Your task to perform on an android device: turn off data saver in the chrome app Image 0: 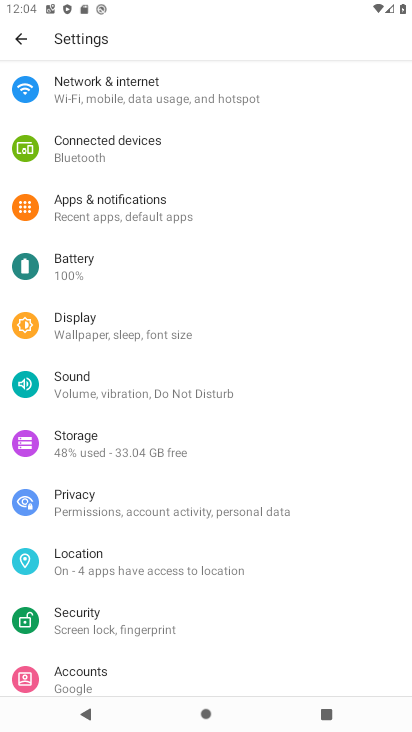
Step 0: press home button
Your task to perform on an android device: turn off data saver in the chrome app Image 1: 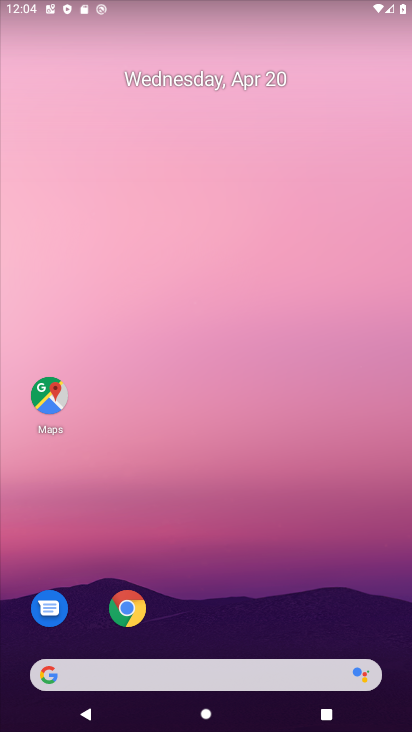
Step 1: click (130, 615)
Your task to perform on an android device: turn off data saver in the chrome app Image 2: 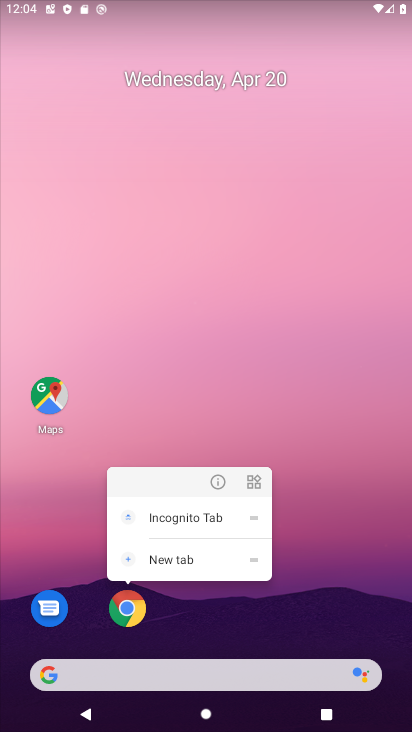
Step 2: click (130, 615)
Your task to perform on an android device: turn off data saver in the chrome app Image 3: 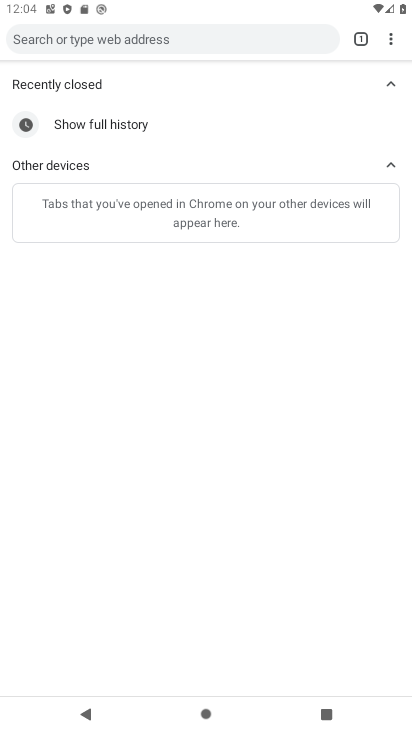
Step 3: click (390, 41)
Your task to perform on an android device: turn off data saver in the chrome app Image 4: 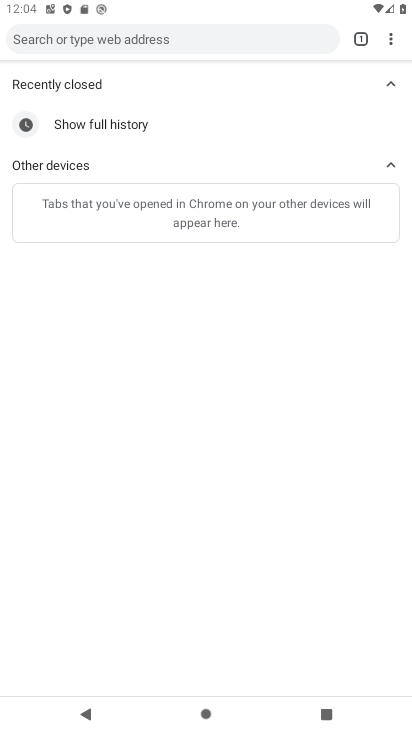
Step 4: click (387, 39)
Your task to perform on an android device: turn off data saver in the chrome app Image 5: 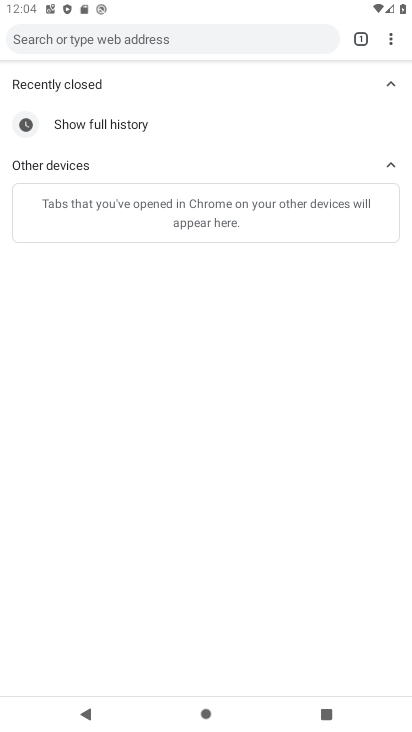
Step 5: click (392, 43)
Your task to perform on an android device: turn off data saver in the chrome app Image 6: 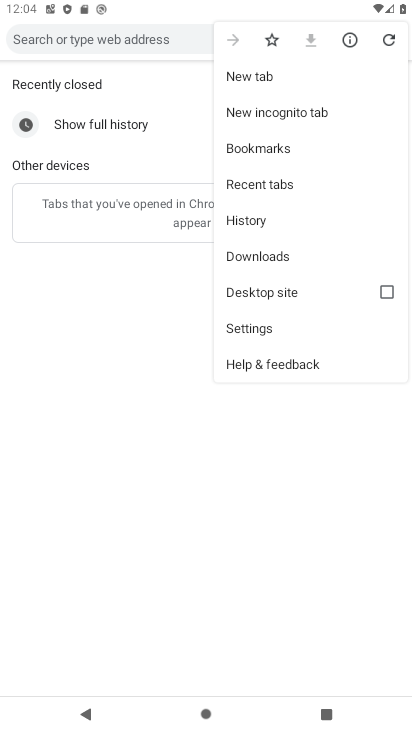
Step 6: click (261, 329)
Your task to perform on an android device: turn off data saver in the chrome app Image 7: 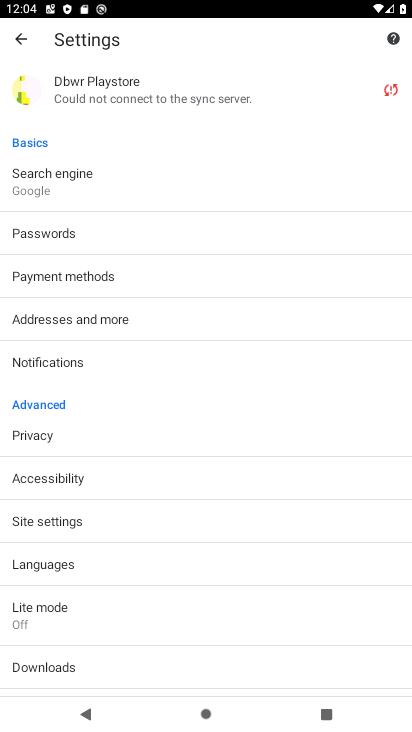
Step 7: click (35, 608)
Your task to perform on an android device: turn off data saver in the chrome app Image 8: 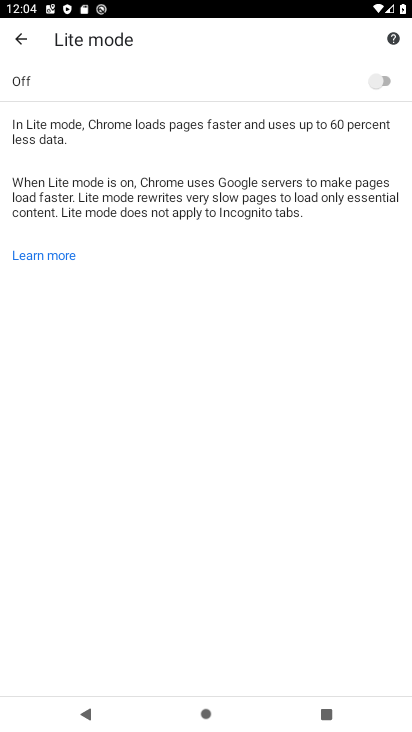
Step 8: task complete